Your task to perform on an android device: change the clock display to analog Image 0: 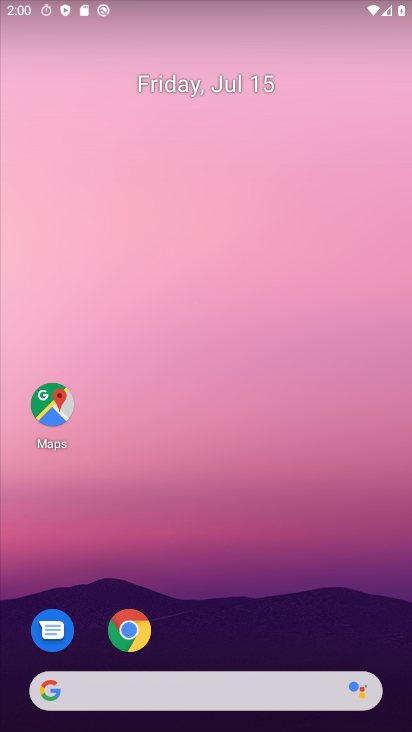
Step 0: drag from (174, 636) to (179, 188)
Your task to perform on an android device: change the clock display to analog Image 1: 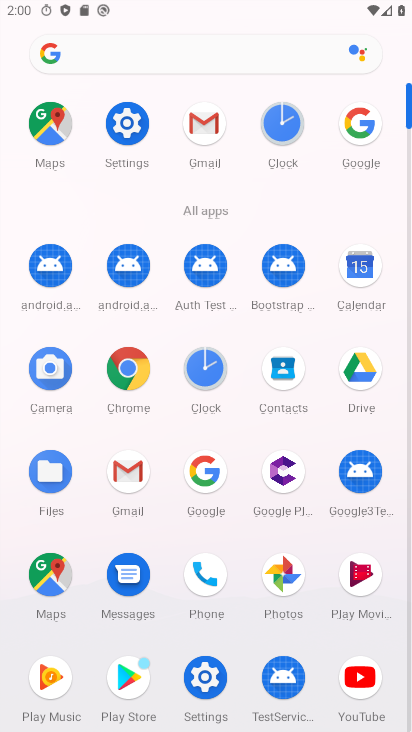
Step 1: click (268, 135)
Your task to perform on an android device: change the clock display to analog Image 2: 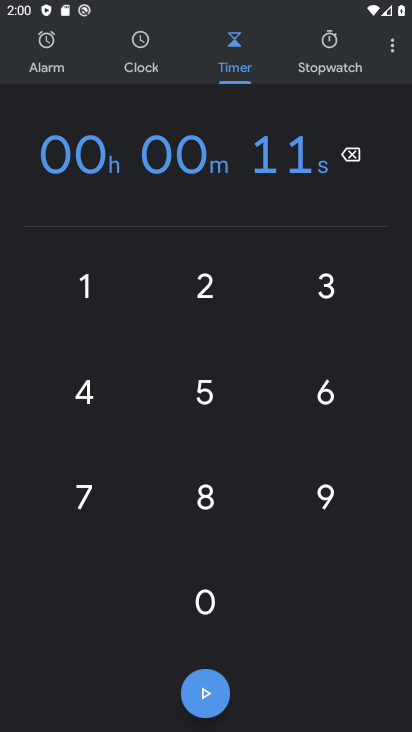
Step 2: click (382, 42)
Your task to perform on an android device: change the clock display to analog Image 3: 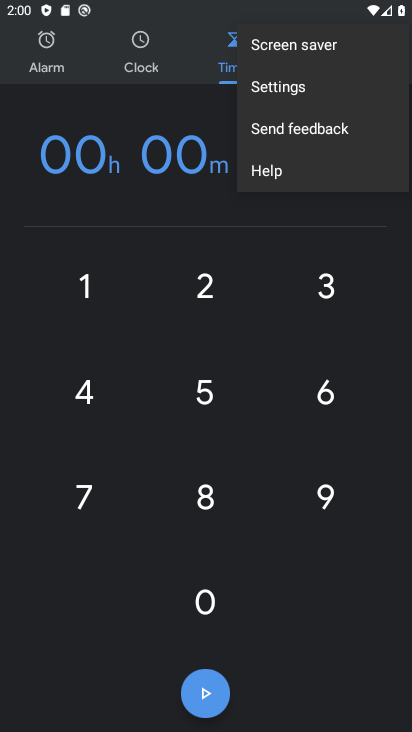
Step 3: click (338, 82)
Your task to perform on an android device: change the clock display to analog Image 4: 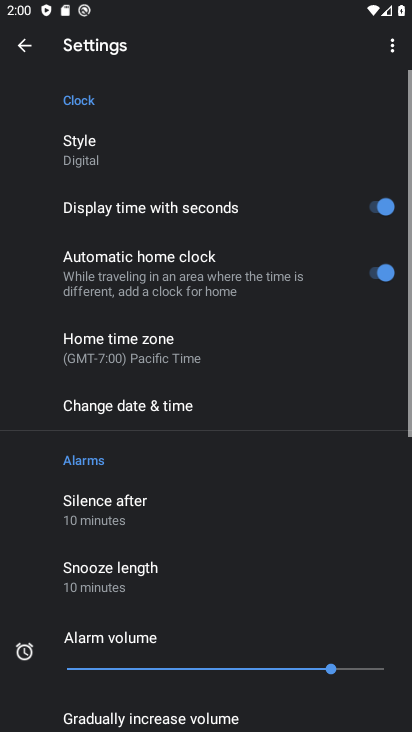
Step 4: click (154, 161)
Your task to perform on an android device: change the clock display to analog Image 5: 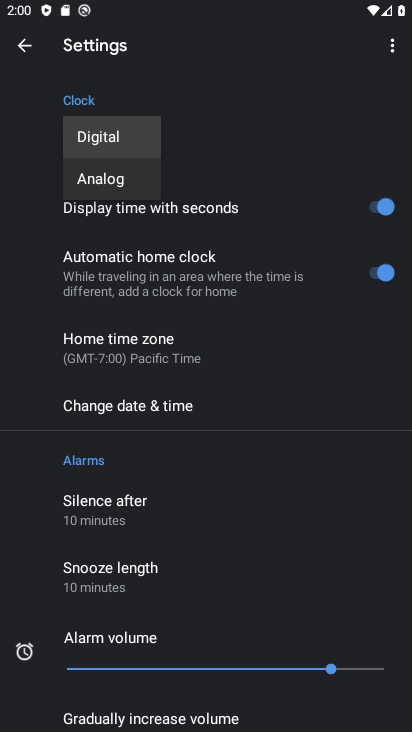
Step 5: click (134, 179)
Your task to perform on an android device: change the clock display to analog Image 6: 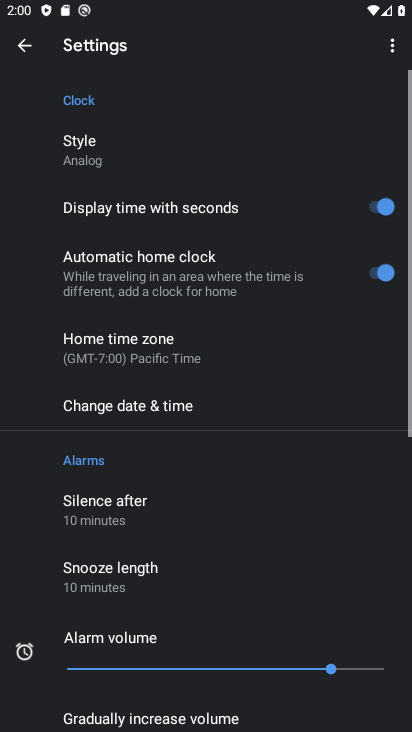
Step 6: task complete